Your task to perform on an android device: all mails in gmail Image 0: 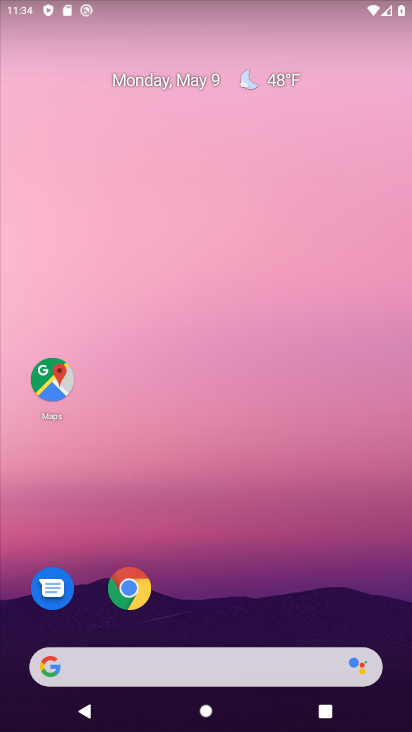
Step 0: drag from (313, 573) to (289, 327)
Your task to perform on an android device: all mails in gmail Image 1: 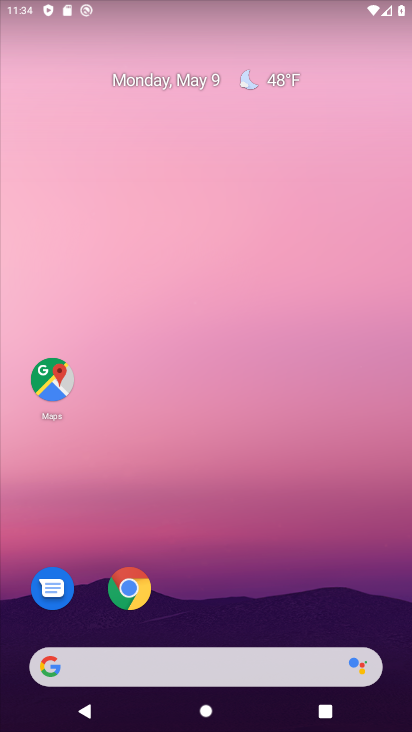
Step 1: drag from (238, 348) to (238, 189)
Your task to perform on an android device: all mails in gmail Image 2: 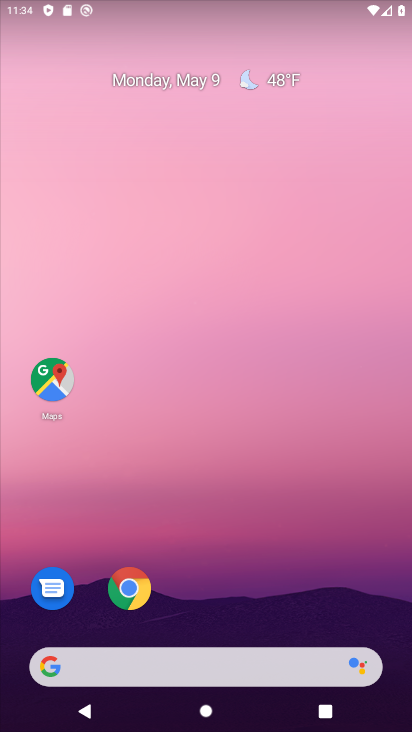
Step 2: drag from (205, 641) to (285, 254)
Your task to perform on an android device: all mails in gmail Image 3: 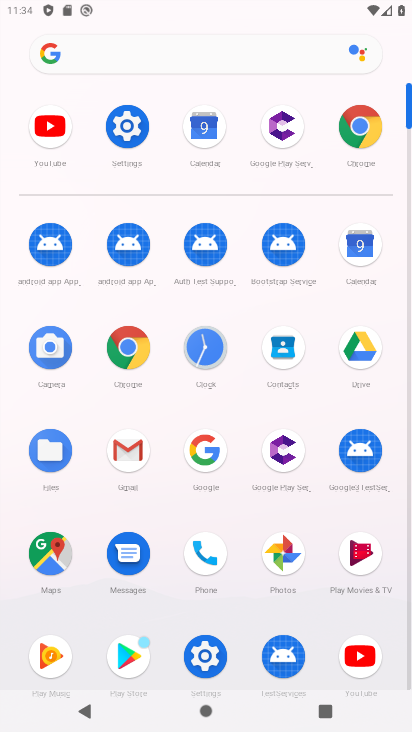
Step 3: click (128, 450)
Your task to perform on an android device: all mails in gmail Image 4: 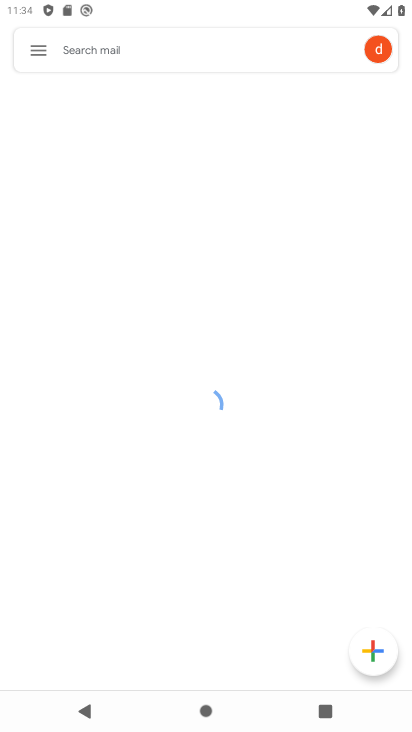
Step 4: click (38, 59)
Your task to perform on an android device: all mails in gmail Image 5: 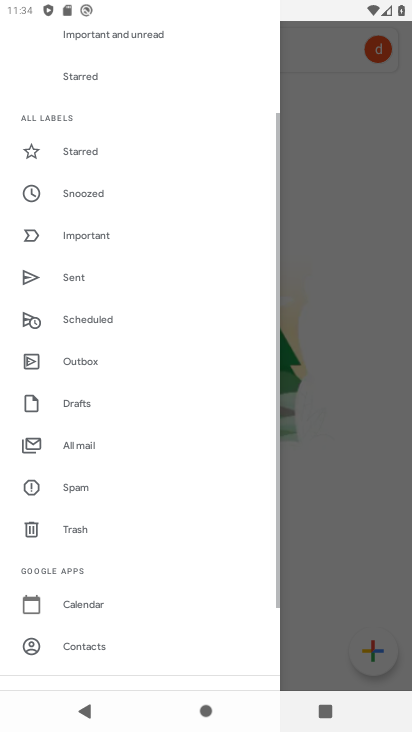
Step 5: click (88, 446)
Your task to perform on an android device: all mails in gmail Image 6: 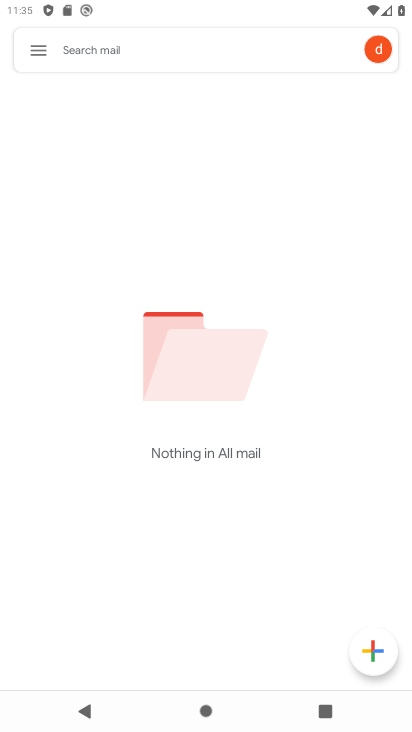
Step 6: task complete